Your task to perform on an android device: toggle translation in the chrome app Image 0: 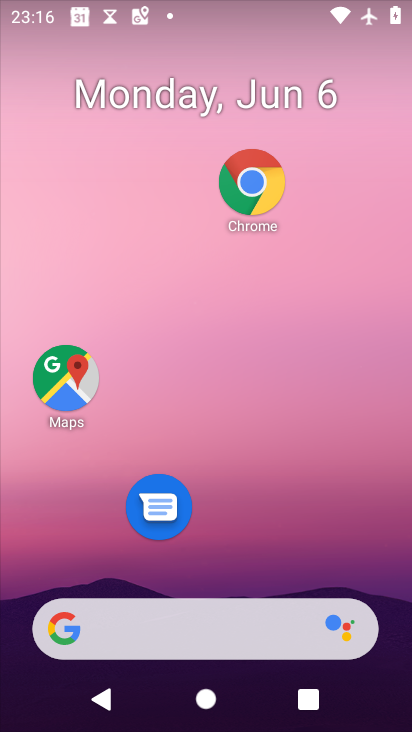
Step 0: click (239, 193)
Your task to perform on an android device: toggle translation in the chrome app Image 1: 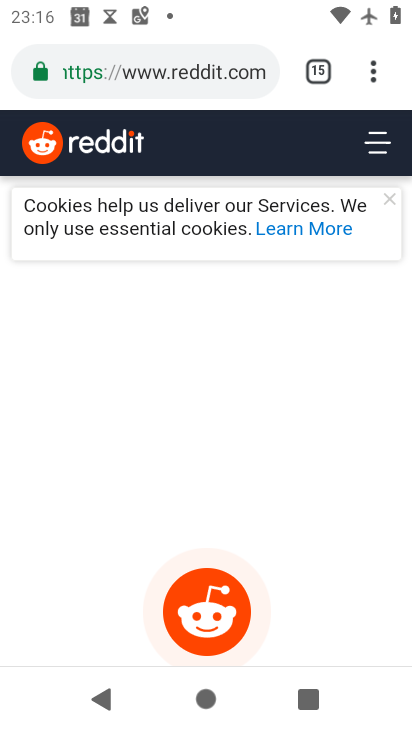
Step 1: click (384, 59)
Your task to perform on an android device: toggle translation in the chrome app Image 2: 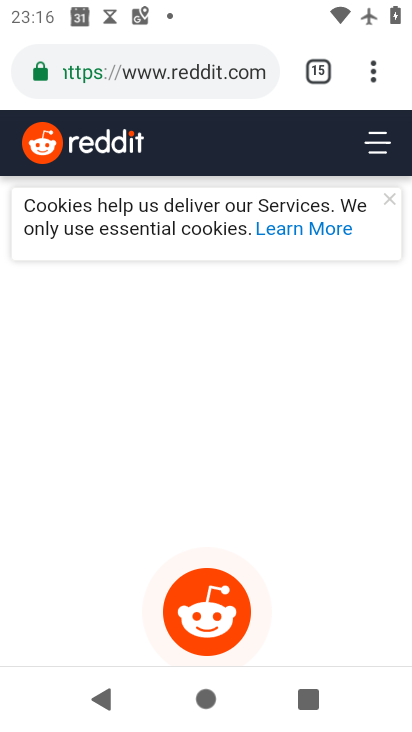
Step 2: click (381, 53)
Your task to perform on an android device: toggle translation in the chrome app Image 3: 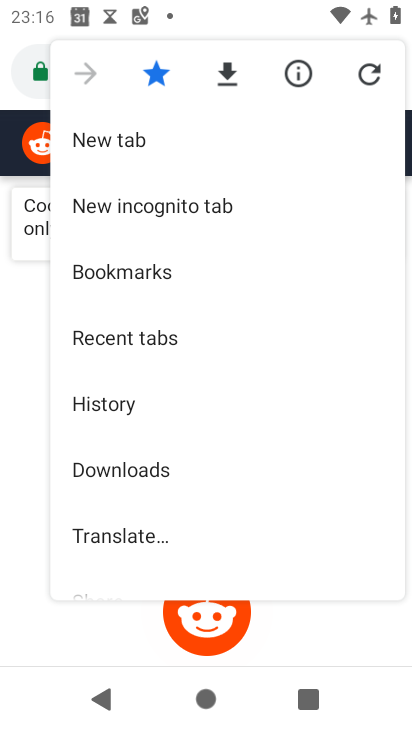
Step 3: drag from (174, 488) to (198, 230)
Your task to perform on an android device: toggle translation in the chrome app Image 4: 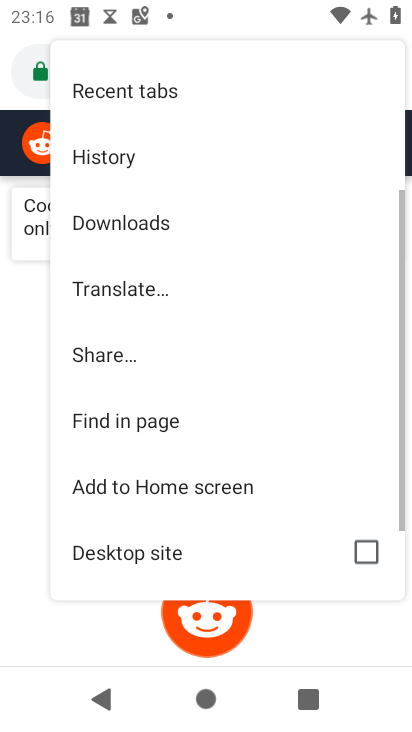
Step 4: drag from (190, 466) to (216, 170)
Your task to perform on an android device: toggle translation in the chrome app Image 5: 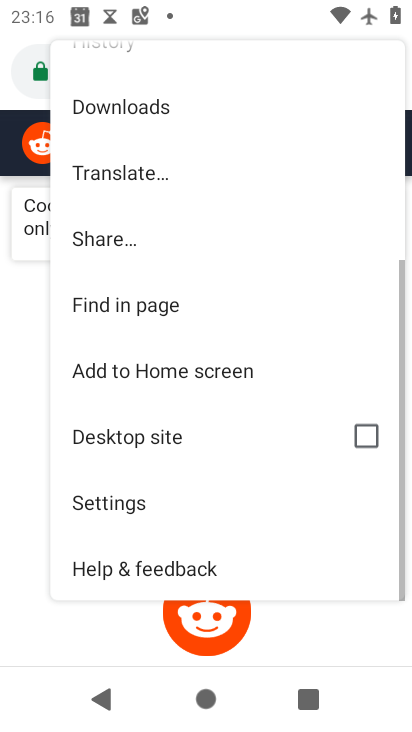
Step 5: click (129, 500)
Your task to perform on an android device: toggle translation in the chrome app Image 6: 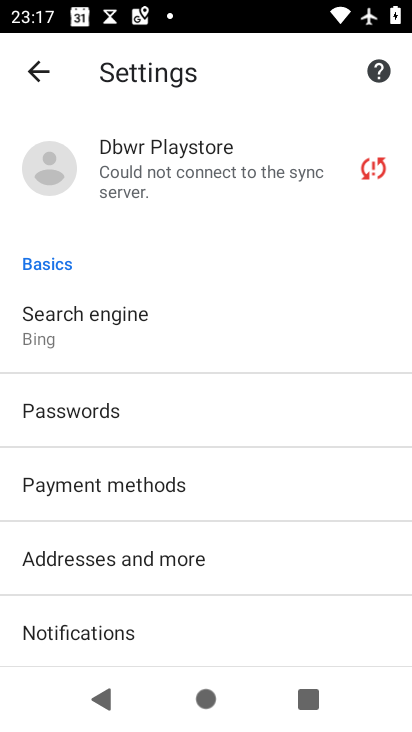
Step 6: drag from (178, 612) to (173, 481)
Your task to perform on an android device: toggle translation in the chrome app Image 7: 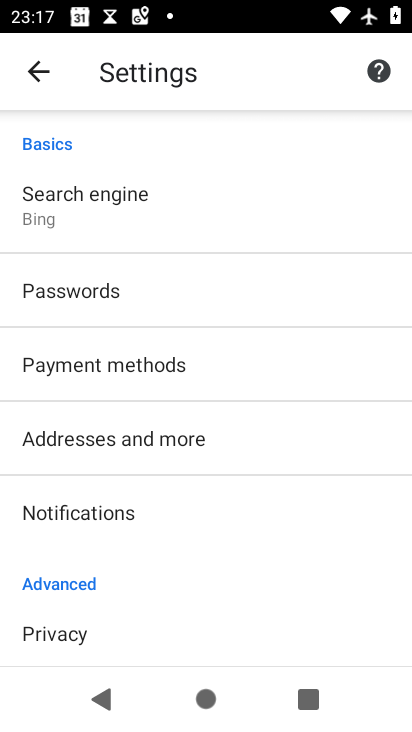
Step 7: drag from (158, 579) to (184, 339)
Your task to perform on an android device: toggle translation in the chrome app Image 8: 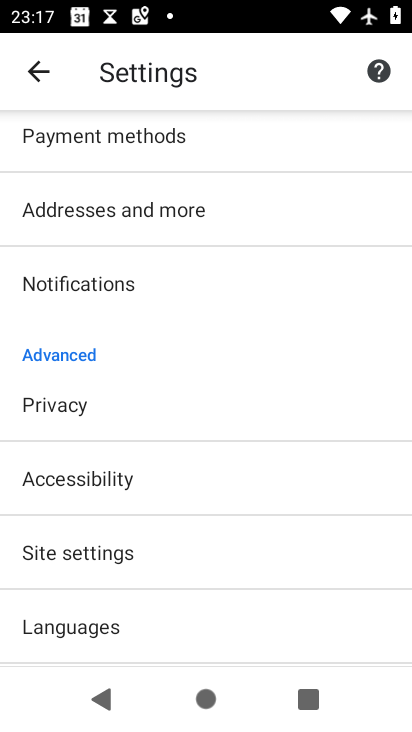
Step 8: click (122, 620)
Your task to perform on an android device: toggle translation in the chrome app Image 9: 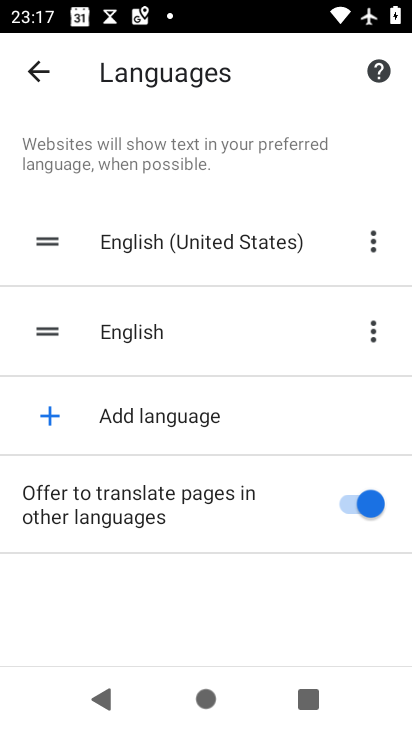
Step 9: click (352, 498)
Your task to perform on an android device: toggle translation in the chrome app Image 10: 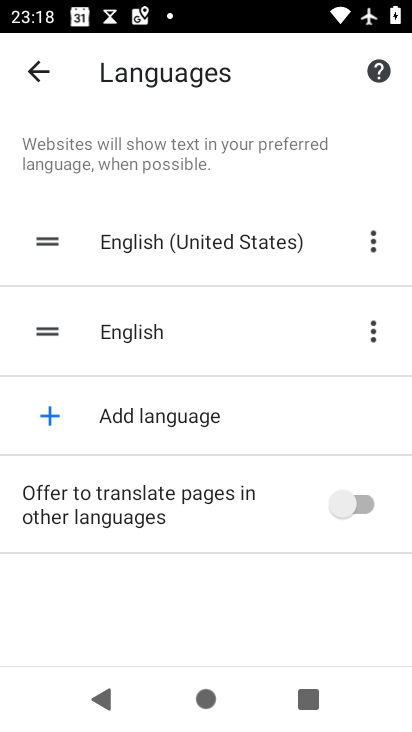
Step 10: task complete